Your task to perform on an android device: see creations saved in the google photos Image 0: 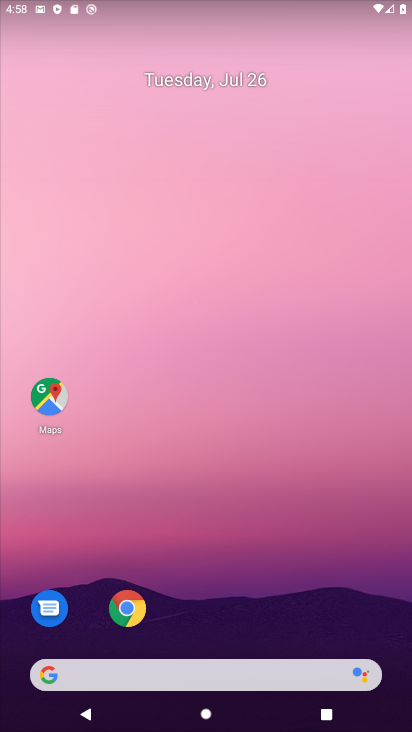
Step 0: press home button
Your task to perform on an android device: see creations saved in the google photos Image 1: 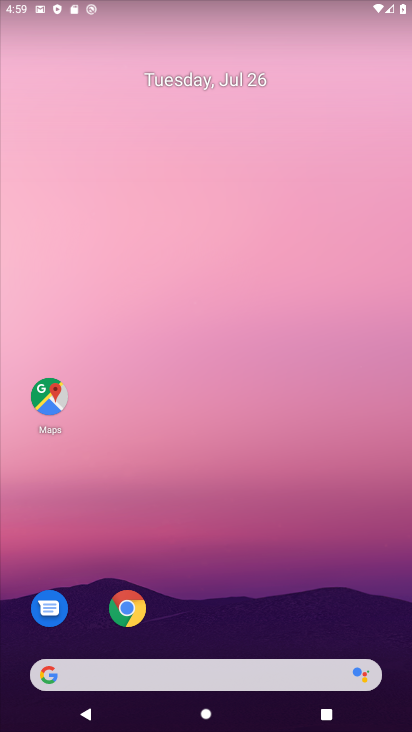
Step 1: drag from (271, 165) to (374, 8)
Your task to perform on an android device: see creations saved in the google photos Image 2: 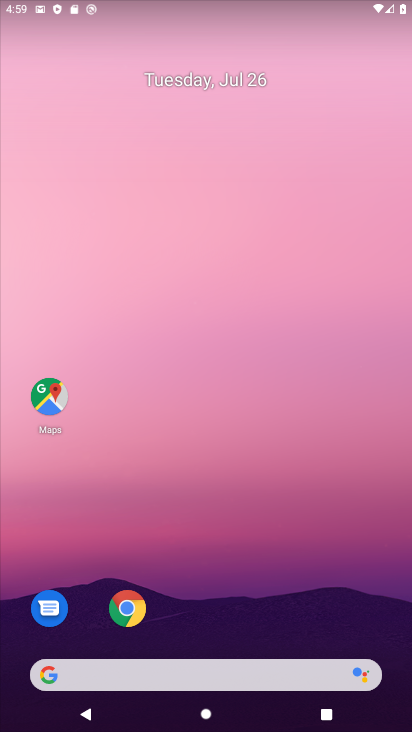
Step 2: drag from (246, 600) to (382, 66)
Your task to perform on an android device: see creations saved in the google photos Image 3: 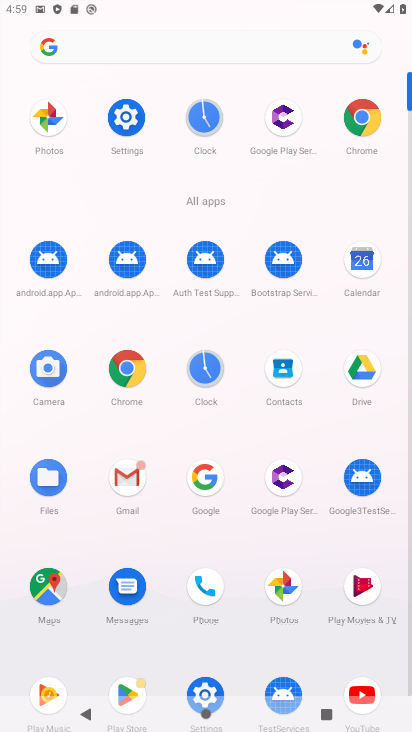
Step 3: click (288, 593)
Your task to perform on an android device: see creations saved in the google photos Image 4: 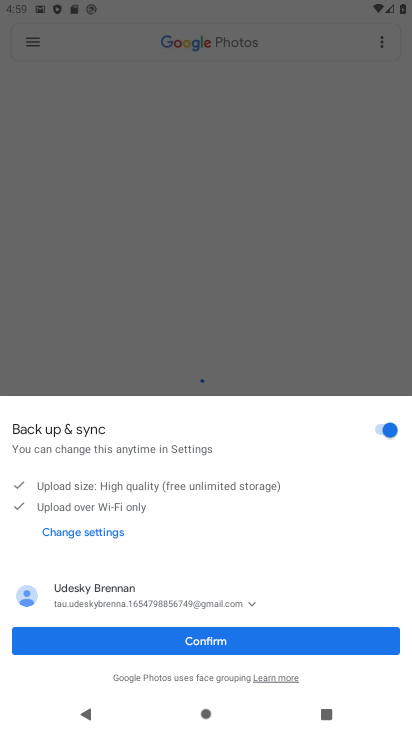
Step 4: click (245, 652)
Your task to perform on an android device: see creations saved in the google photos Image 5: 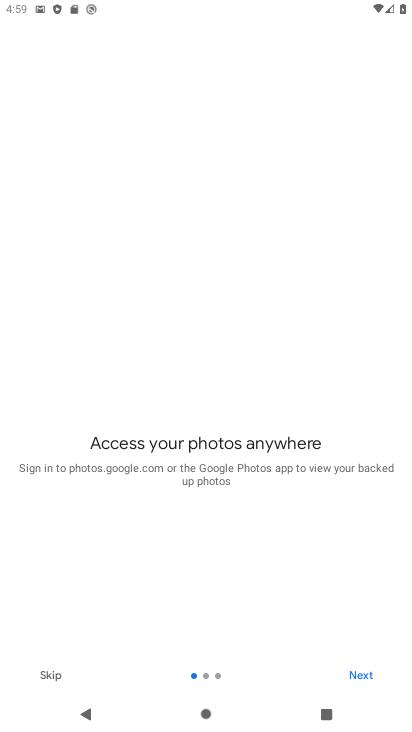
Step 5: click (350, 677)
Your task to perform on an android device: see creations saved in the google photos Image 6: 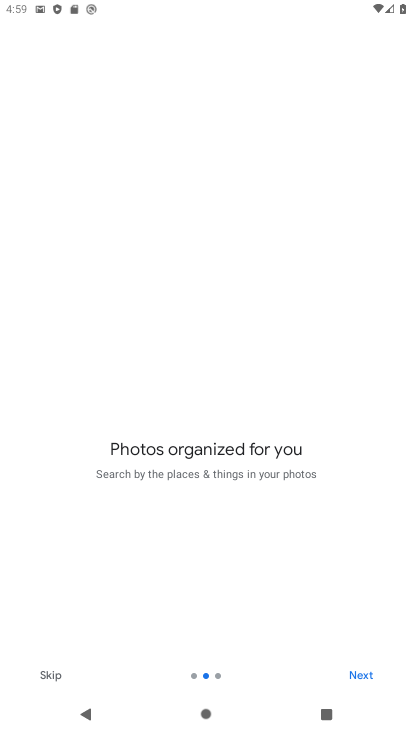
Step 6: click (354, 672)
Your task to perform on an android device: see creations saved in the google photos Image 7: 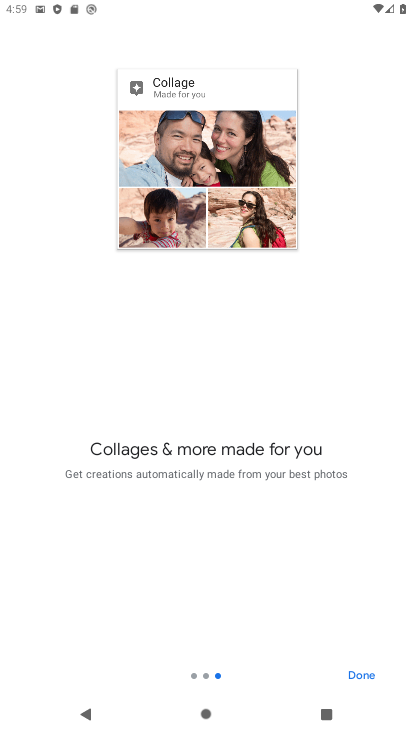
Step 7: click (352, 676)
Your task to perform on an android device: see creations saved in the google photos Image 8: 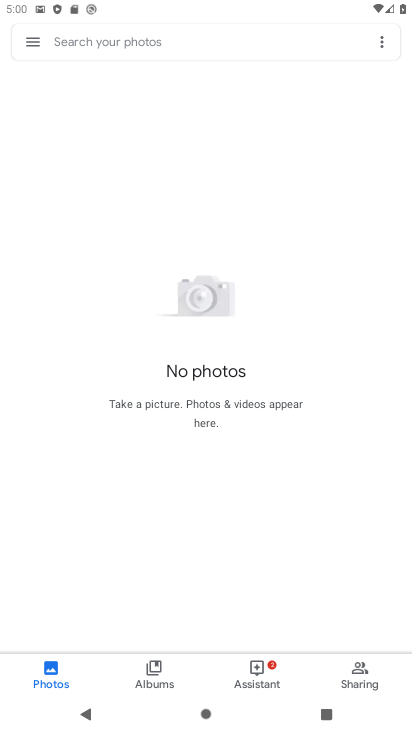
Step 8: click (160, 35)
Your task to perform on an android device: see creations saved in the google photos Image 9: 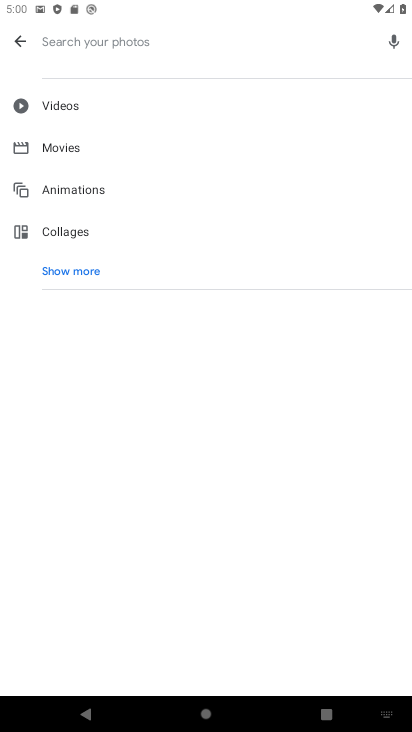
Step 9: click (67, 272)
Your task to perform on an android device: see creations saved in the google photos Image 10: 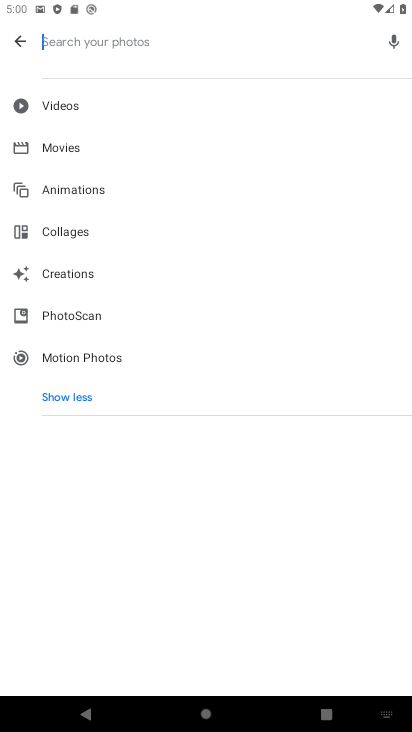
Step 10: click (61, 271)
Your task to perform on an android device: see creations saved in the google photos Image 11: 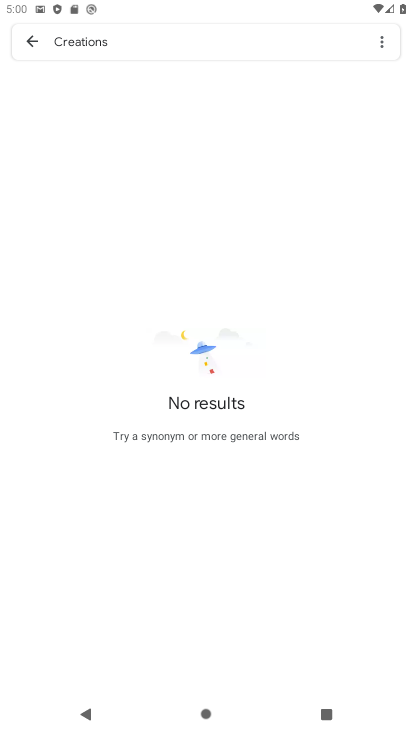
Step 11: task complete